Your task to perform on an android device: toggle location history Image 0: 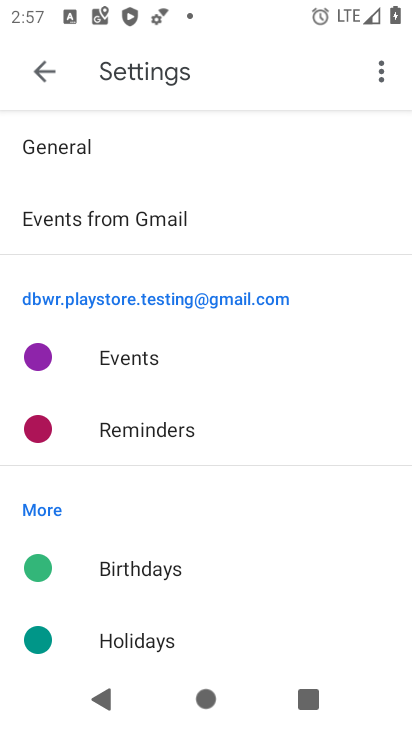
Step 0: press home button
Your task to perform on an android device: toggle location history Image 1: 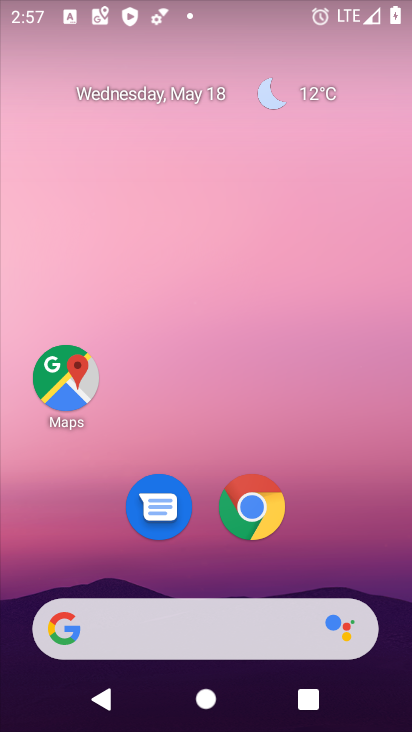
Step 1: click (66, 377)
Your task to perform on an android device: toggle location history Image 2: 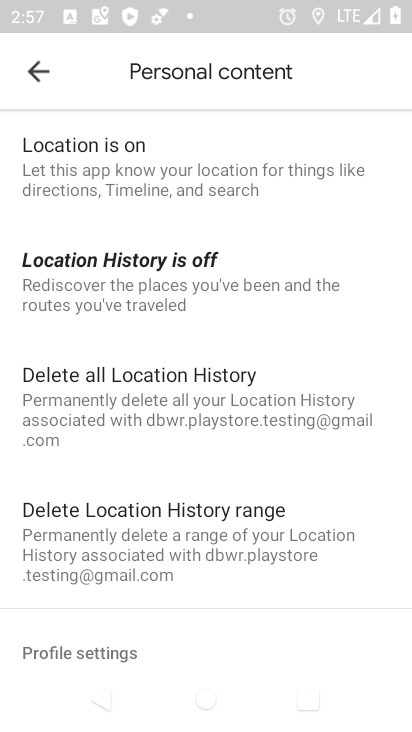
Step 2: click (114, 276)
Your task to perform on an android device: toggle location history Image 3: 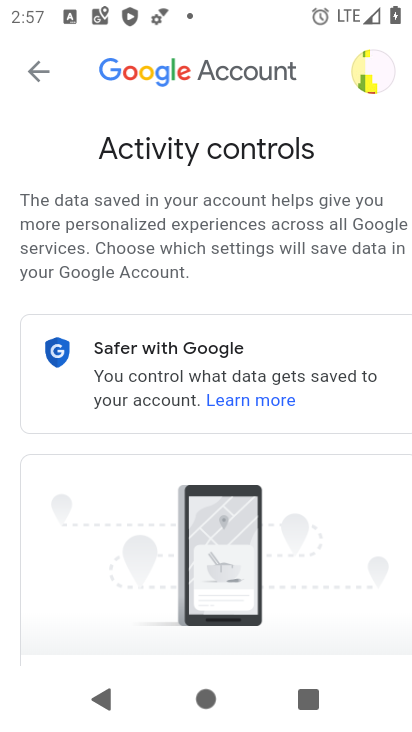
Step 3: drag from (317, 611) to (323, 239)
Your task to perform on an android device: toggle location history Image 4: 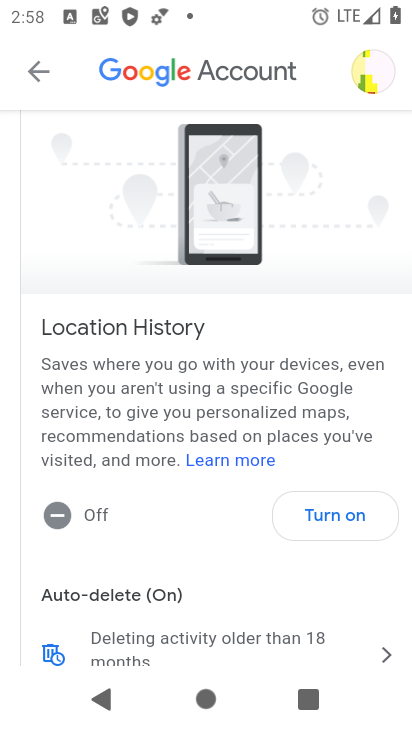
Step 4: click (335, 526)
Your task to perform on an android device: toggle location history Image 5: 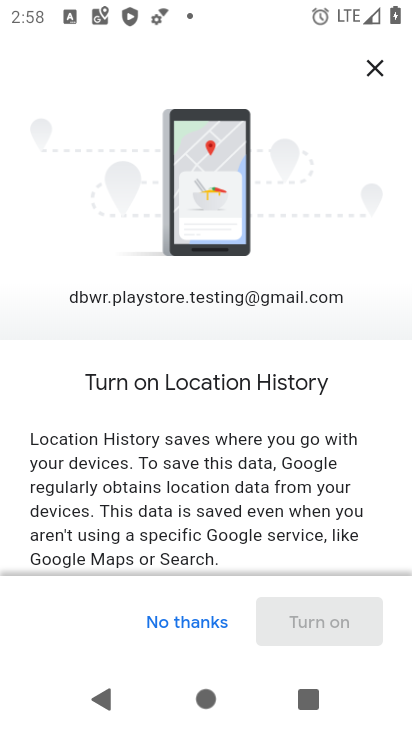
Step 5: drag from (311, 542) to (278, 73)
Your task to perform on an android device: toggle location history Image 6: 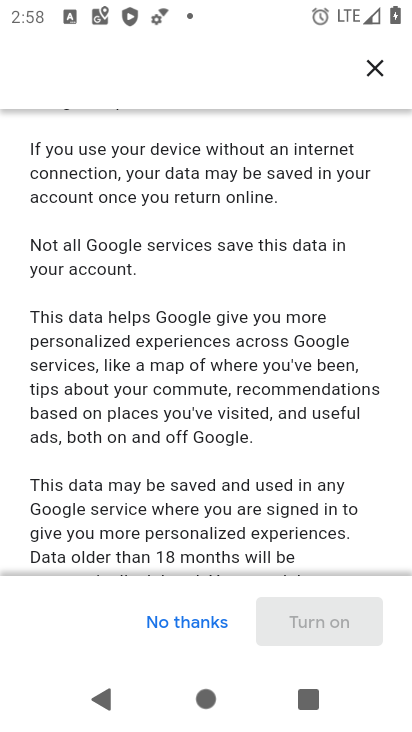
Step 6: drag from (309, 531) to (286, 142)
Your task to perform on an android device: toggle location history Image 7: 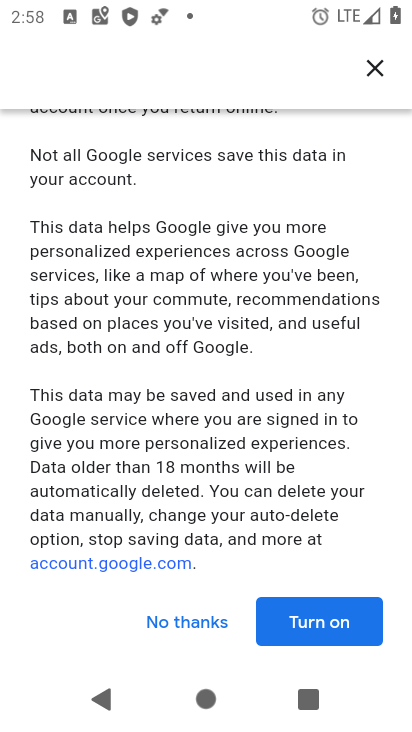
Step 7: click (318, 621)
Your task to perform on an android device: toggle location history Image 8: 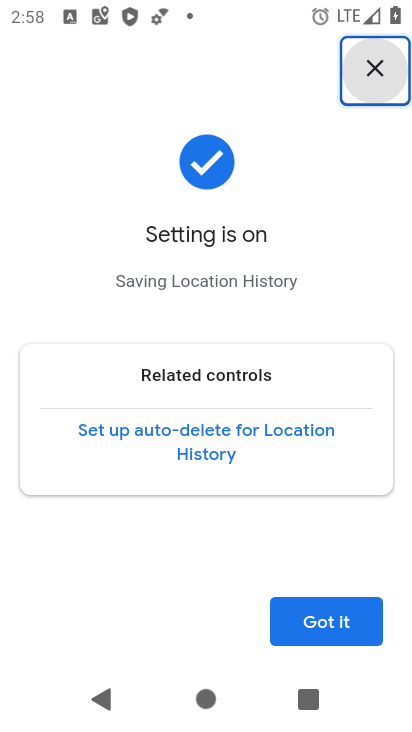
Step 8: click (325, 627)
Your task to perform on an android device: toggle location history Image 9: 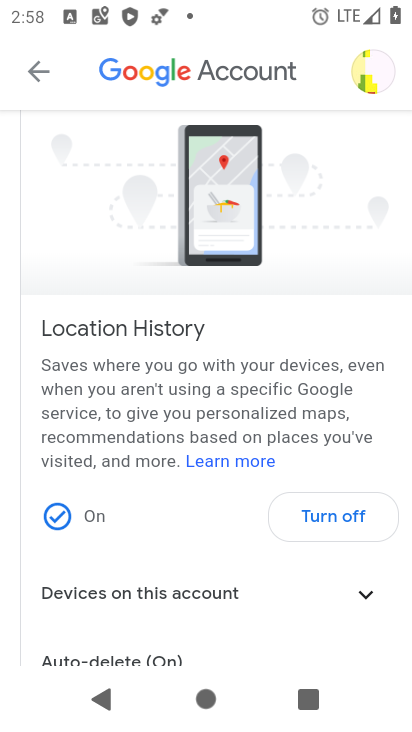
Step 9: task complete